Your task to perform on an android device: Open Amazon Image 0: 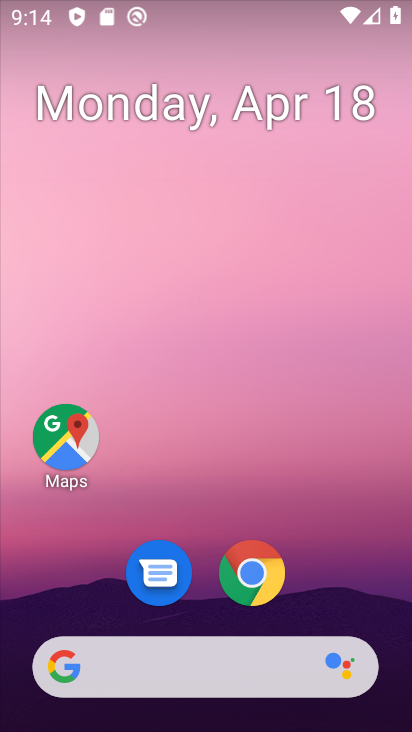
Step 0: click (245, 567)
Your task to perform on an android device: Open Amazon Image 1: 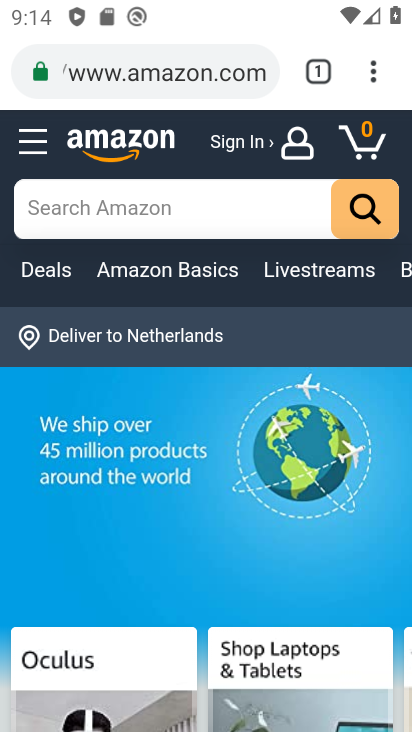
Step 1: task complete